Your task to perform on an android device: Go to CNN.com Image 0: 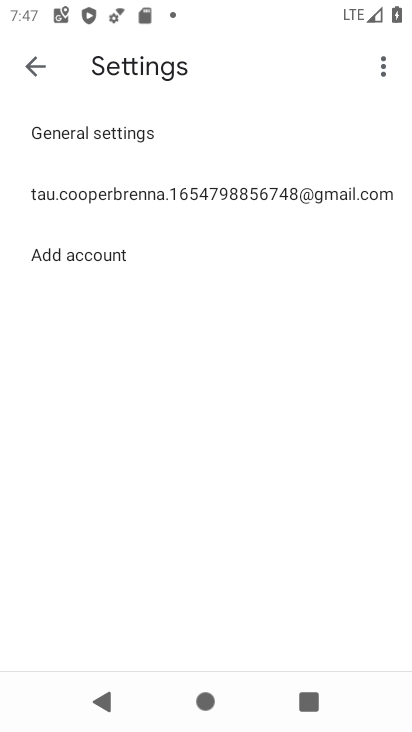
Step 0: press home button
Your task to perform on an android device: Go to CNN.com Image 1: 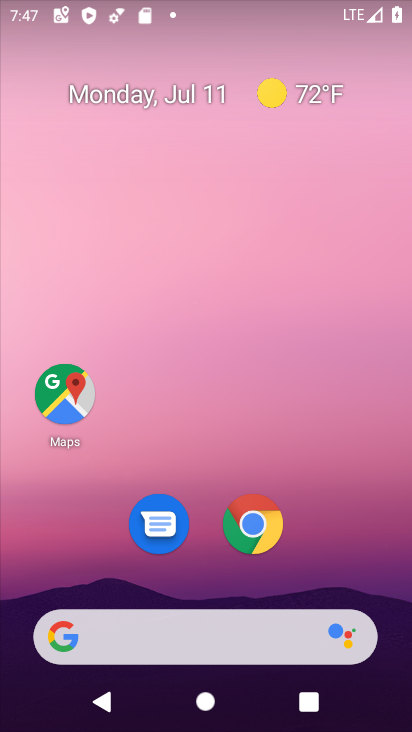
Step 1: click (276, 628)
Your task to perform on an android device: Go to CNN.com Image 2: 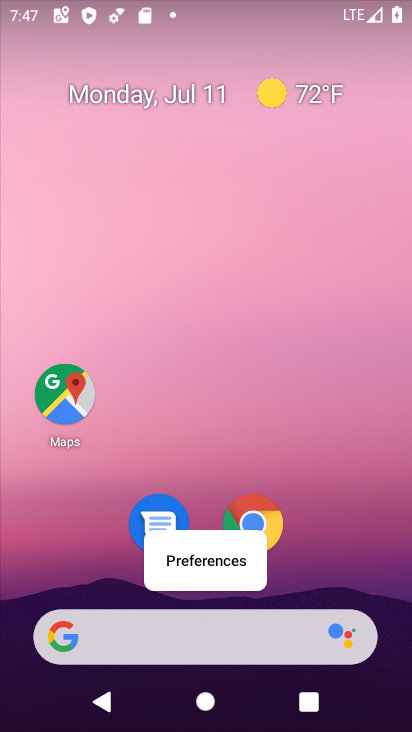
Step 2: click (262, 645)
Your task to perform on an android device: Go to CNN.com Image 3: 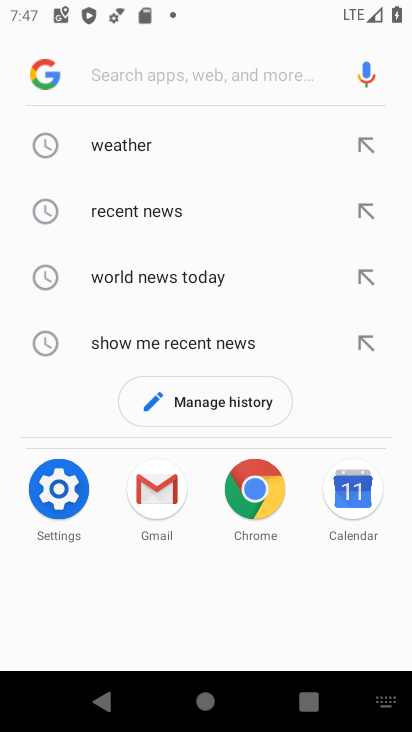
Step 3: type "cnn.com"
Your task to perform on an android device: Go to CNN.com Image 4: 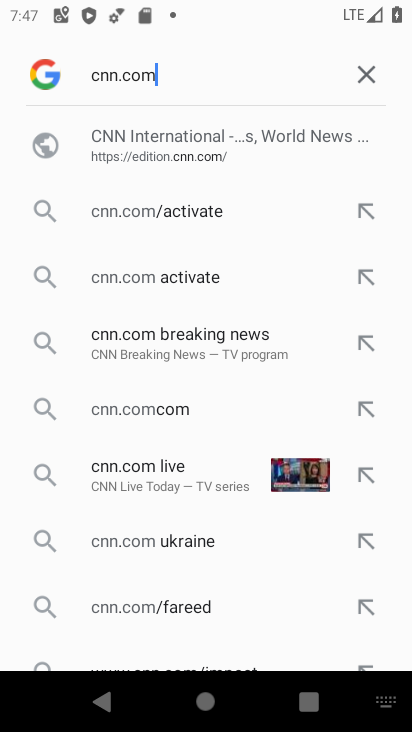
Step 4: click (135, 148)
Your task to perform on an android device: Go to CNN.com Image 5: 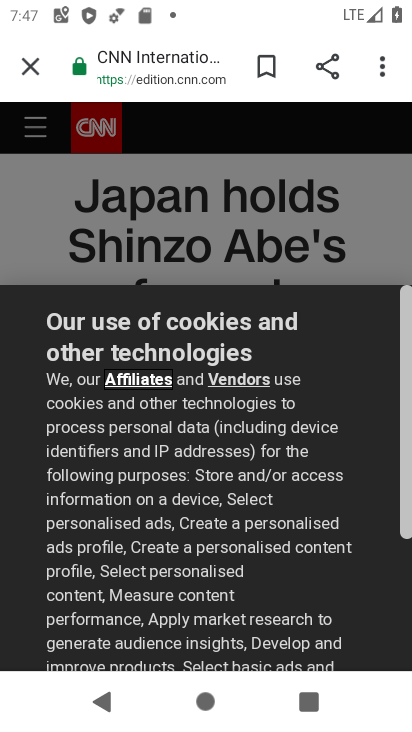
Step 5: drag from (201, 442) to (234, 581)
Your task to perform on an android device: Go to CNN.com Image 6: 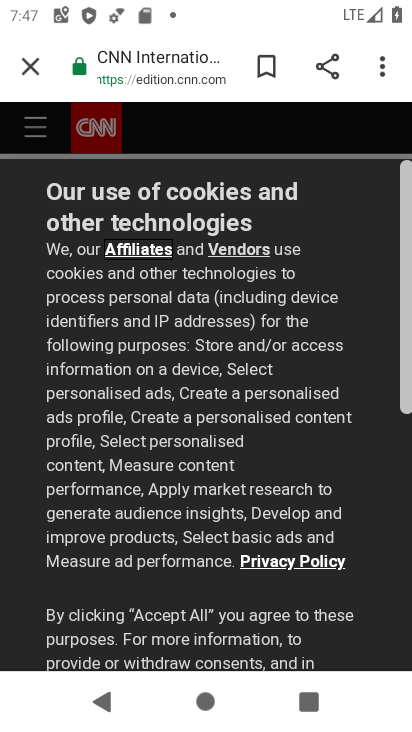
Step 6: drag from (208, 472) to (216, 170)
Your task to perform on an android device: Go to CNN.com Image 7: 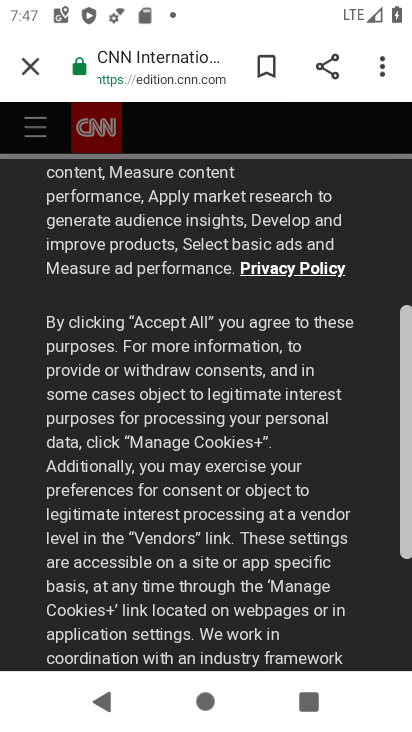
Step 7: drag from (212, 555) to (225, 270)
Your task to perform on an android device: Go to CNN.com Image 8: 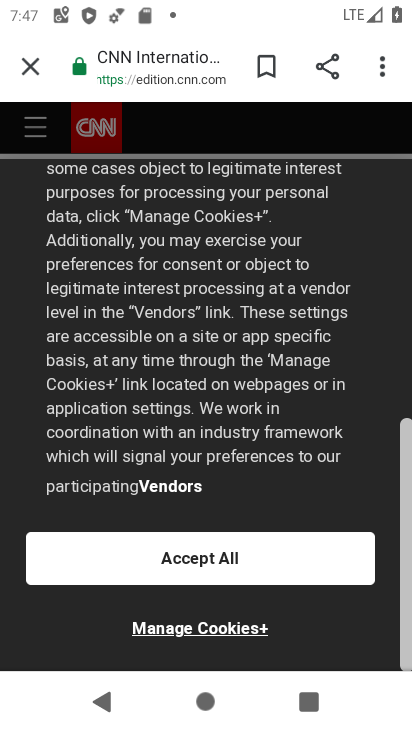
Step 8: click (211, 563)
Your task to perform on an android device: Go to CNN.com Image 9: 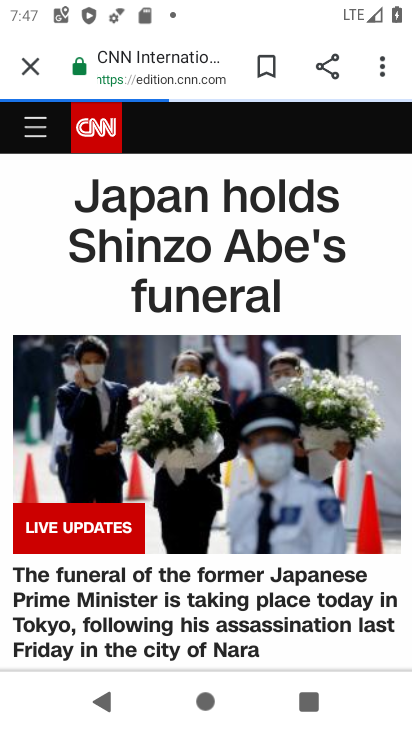
Step 9: drag from (242, 488) to (277, 242)
Your task to perform on an android device: Go to CNN.com Image 10: 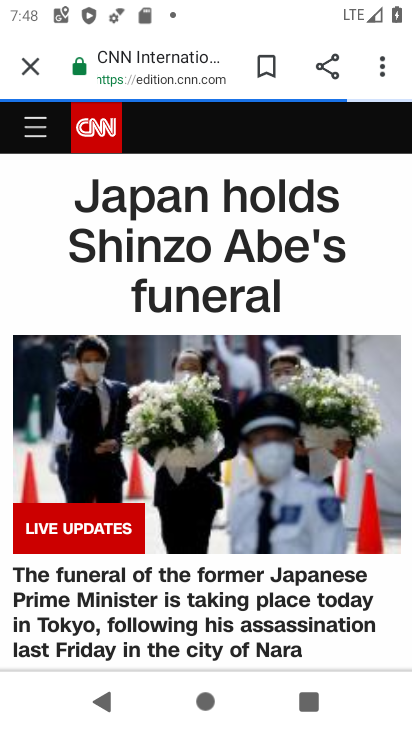
Step 10: drag from (217, 460) to (242, 92)
Your task to perform on an android device: Go to CNN.com Image 11: 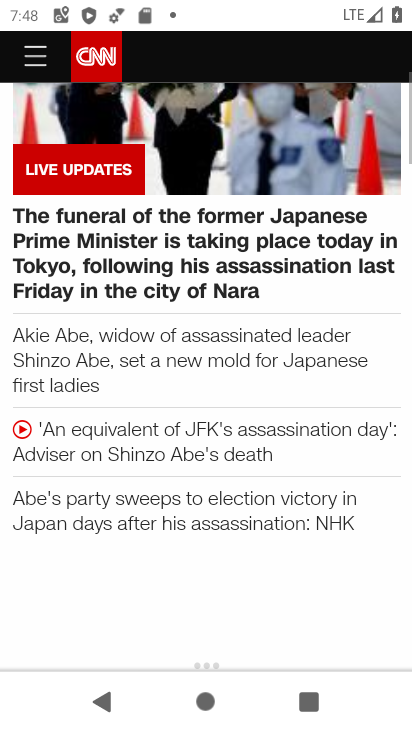
Step 11: drag from (216, 515) to (232, 125)
Your task to perform on an android device: Go to CNN.com Image 12: 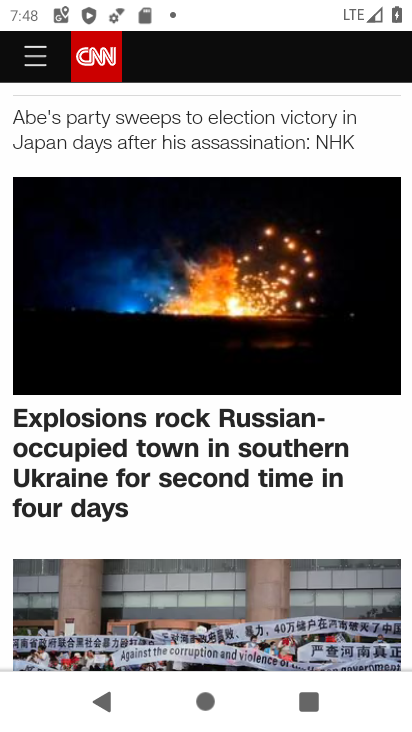
Step 12: drag from (221, 502) to (221, 293)
Your task to perform on an android device: Go to CNN.com Image 13: 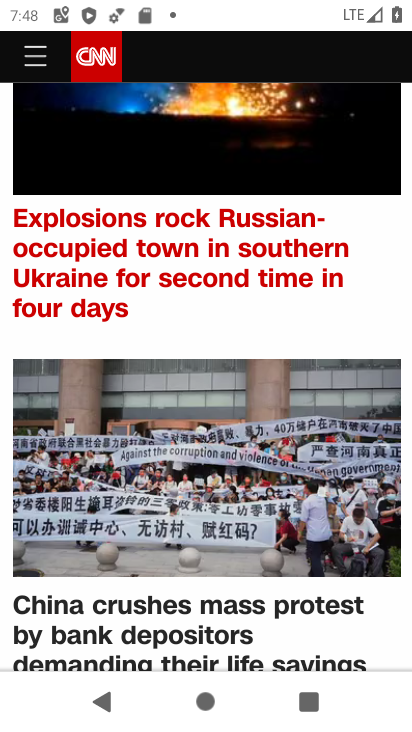
Step 13: drag from (213, 517) to (238, 242)
Your task to perform on an android device: Go to CNN.com Image 14: 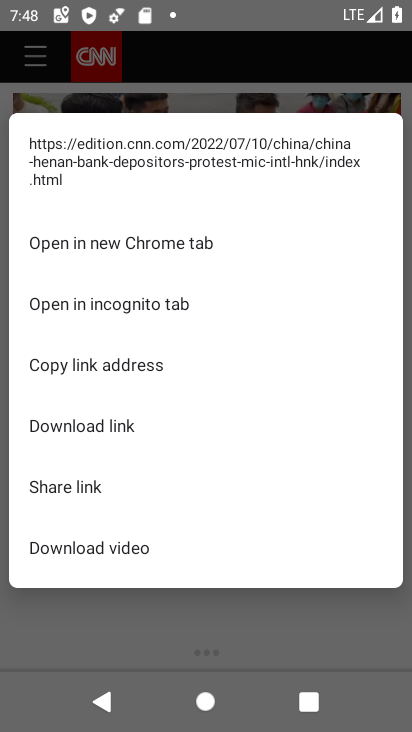
Step 14: click (210, 618)
Your task to perform on an android device: Go to CNN.com Image 15: 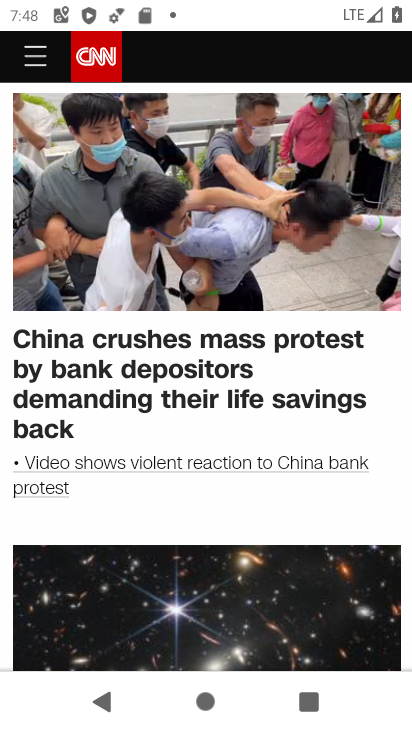
Step 15: task complete